Your task to perform on an android device: Show me popular games on the Play Store Image 0: 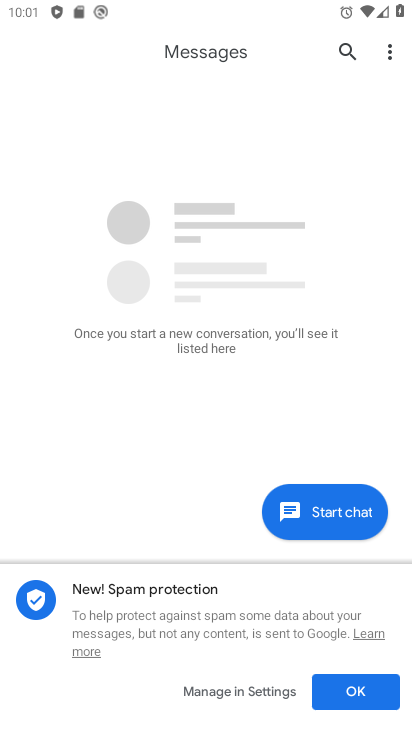
Step 0: press home button
Your task to perform on an android device: Show me popular games on the Play Store Image 1: 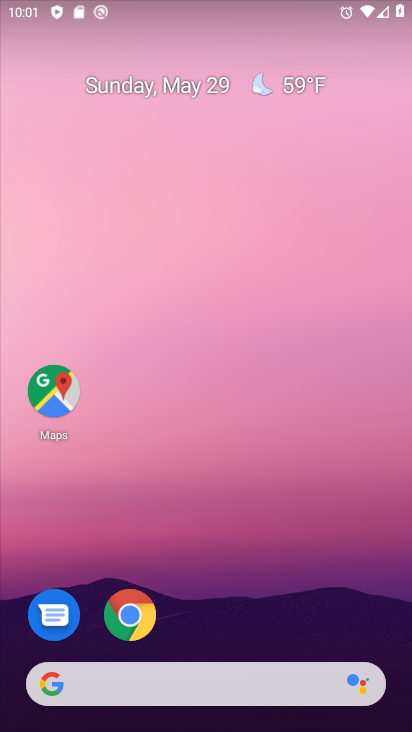
Step 1: drag from (216, 621) to (168, 73)
Your task to perform on an android device: Show me popular games on the Play Store Image 2: 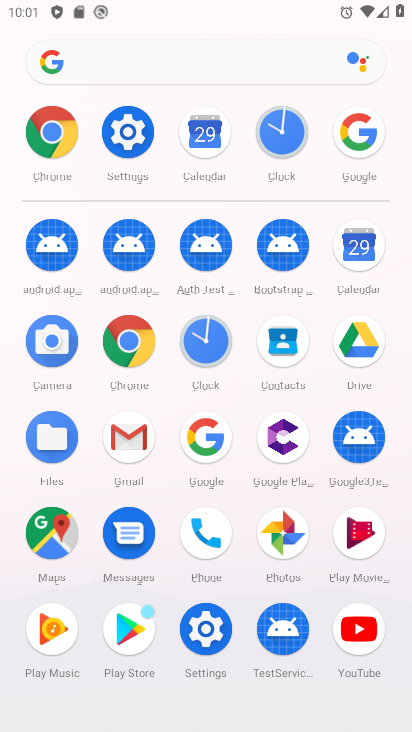
Step 2: click (137, 624)
Your task to perform on an android device: Show me popular games on the Play Store Image 3: 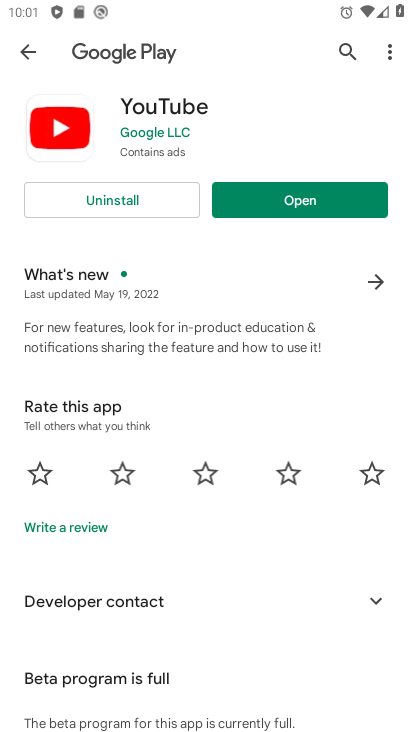
Step 3: press back button
Your task to perform on an android device: Show me popular games on the Play Store Image 4: 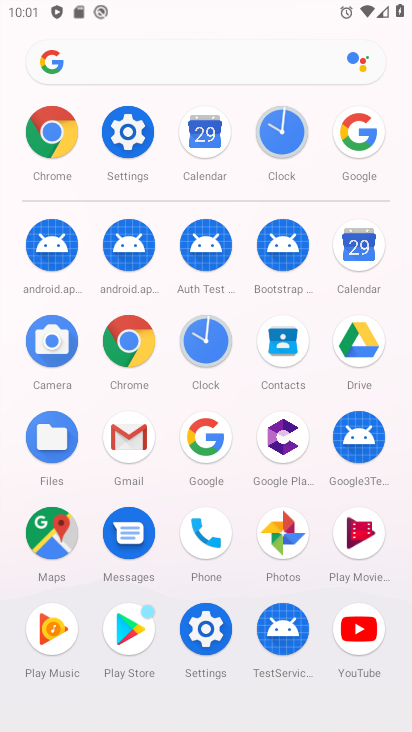
Step 4: click (121, 619)
Your task to perform on an android device: Show me popular games on the Play Store Image 5: 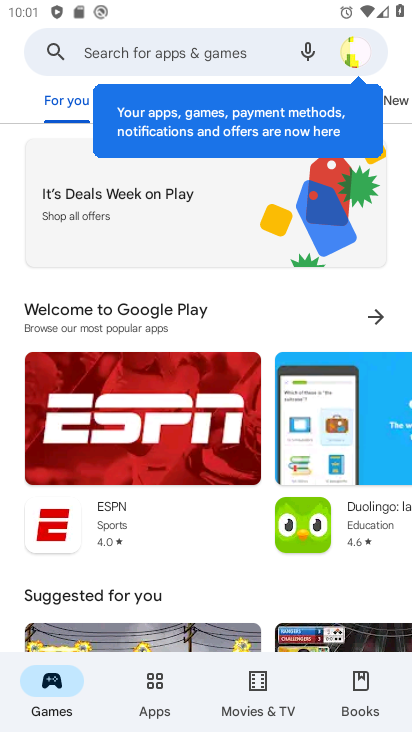
Step 5: drag from (275, 542) to (249, 14)
Your task to perform on an android device: Show me popular games on the Play Store Image 6: 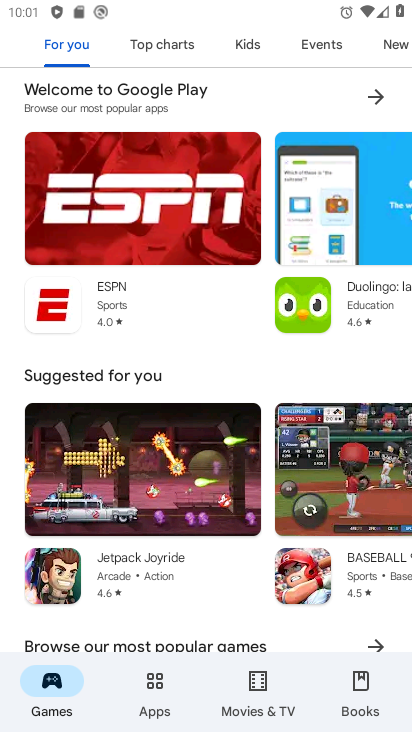
Step 6: drag from (186, 587) to (215, 292)
Your task to perform on an android device: Show me popular games on the Play Store Image 7: 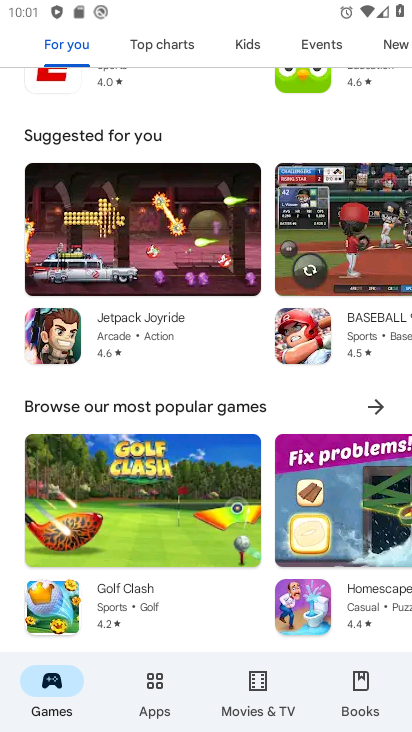
Step 7: click (364, 405)
Your task to perform on an android device: Show me popular games on the Play Store Image 8: 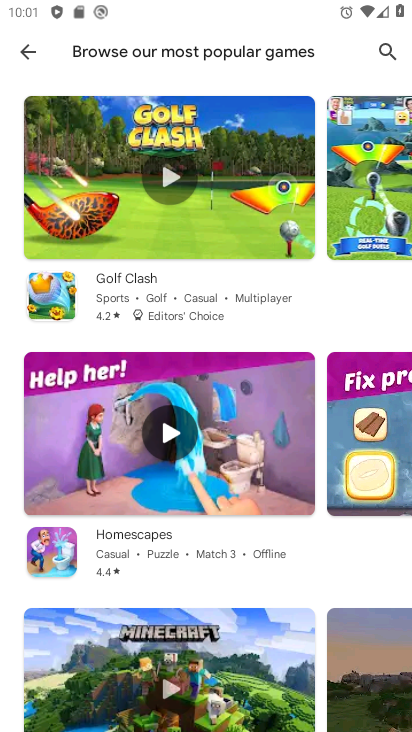
Step 8: task complete